Your task to perform on an android device: Go to settings Image 0: 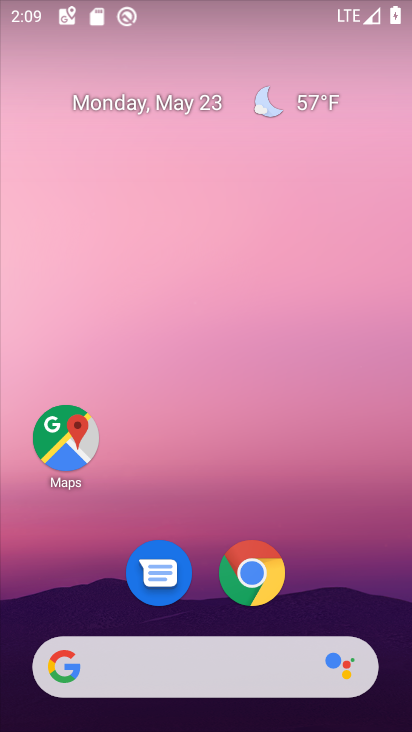
Step 0: drag from (344, 551) to (300, 6)
Your task to perform on an android device: Go to settings Image 1: 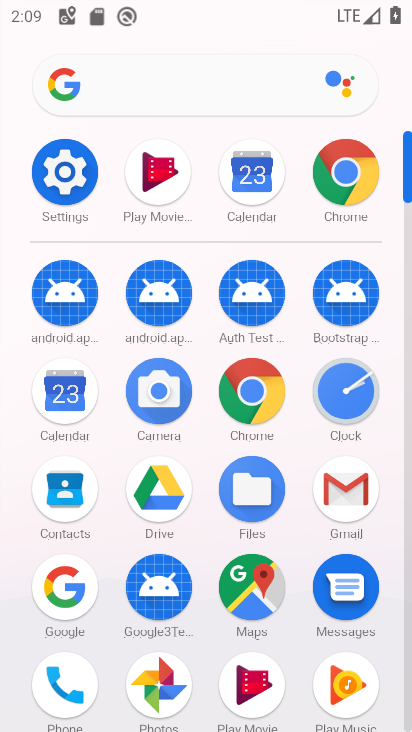
Step 1: click (60, 225)
Your task to perform on an android device: Go to settings Image 2: 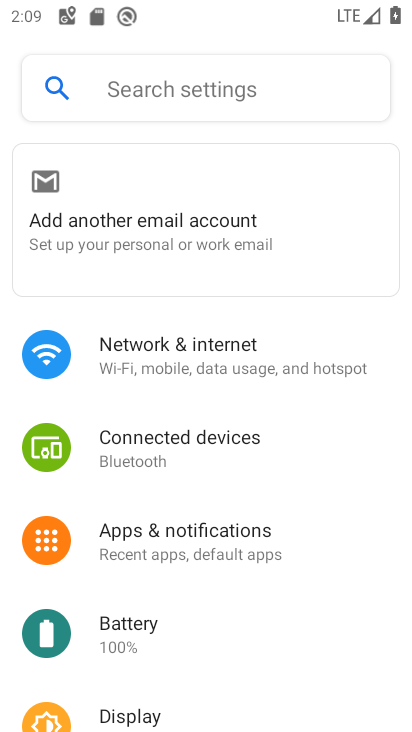
Step 2: click (196, 355)
Your task to perform on an android device: Go to settings Image 3: 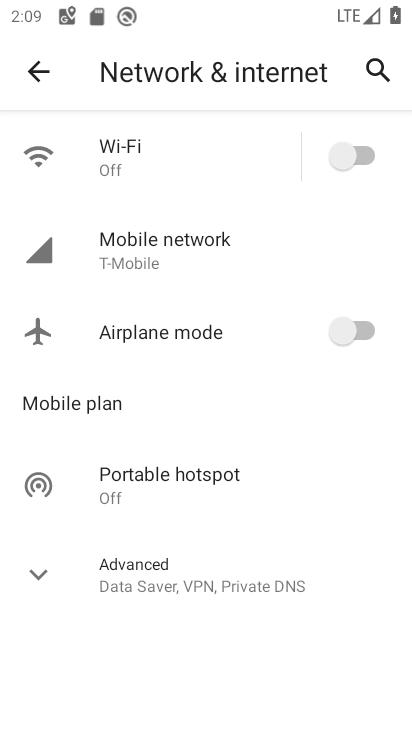
Step 3: task complete